Your task to perform on an android device: allow cookies in the chrome app Image 0: 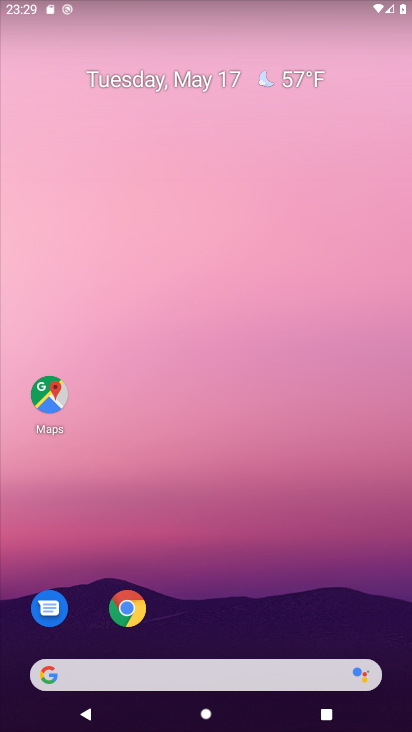
Step 0: click (135, 613)
Your task to perform on an android device: allow cookies in the chrome app Image 1: 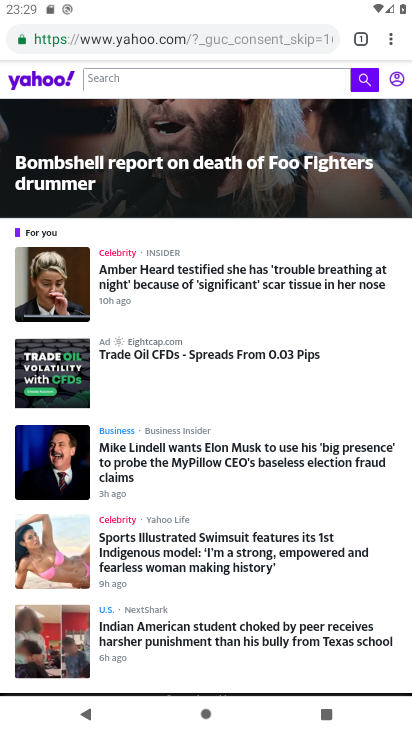
Step 1: click (390, 39)
Your task to perform on an android device: allow cookies in the chrome app Image 2: 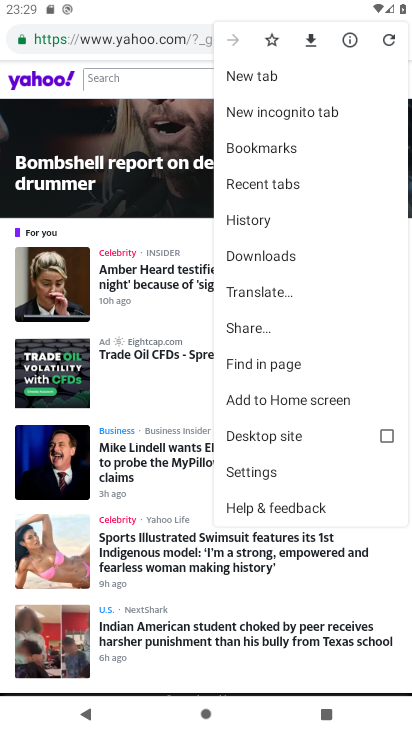
Step 2: click (253, 472)
Your task to perform on an android device: allow cookies in the chrome app Image 3: 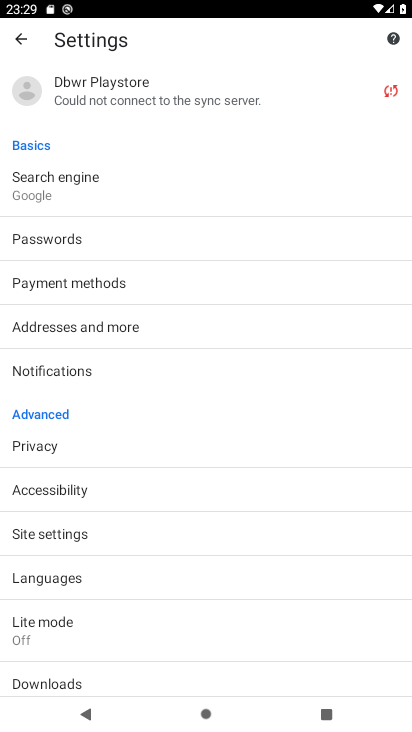
Step 3: click (76, 535)
Your task to perform on an android device: allow cookies in the chrome app Image 4: 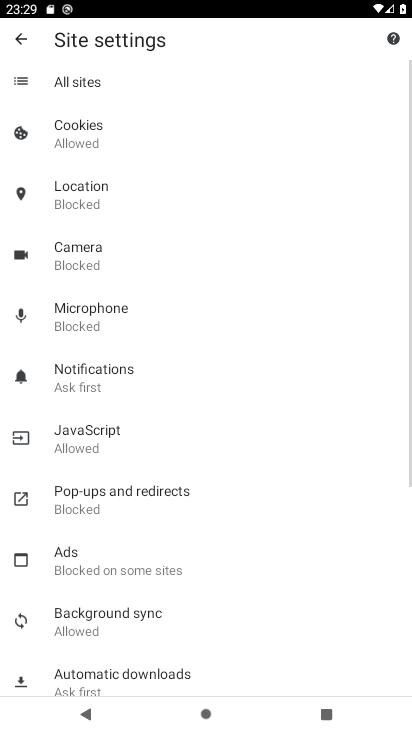
Step 4: click (110, 138)
Your task to perform on an android device: allow cookies in the chrome app Image 5: 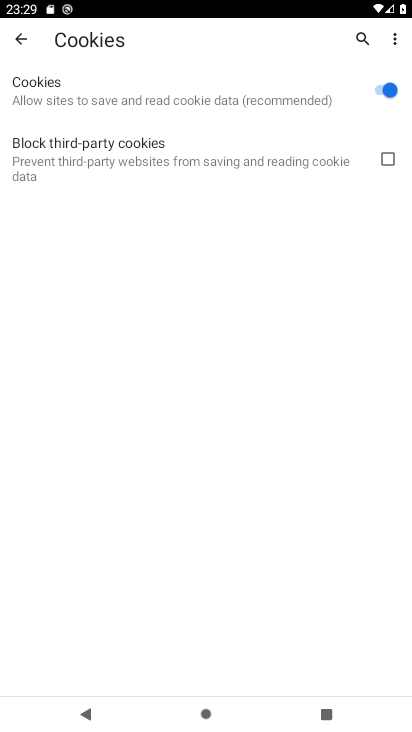
Step 5: task complete